Your task to perform on an android device: read, delete, or share a saved page in the chrome app Image 0: 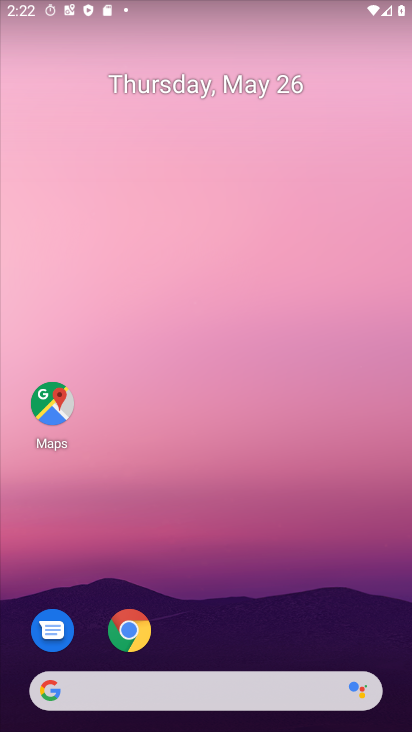
Step 0: click (130, 644)
Your task to perform on an android device: read, delete, or share a saved page in the chrome app Image 1: 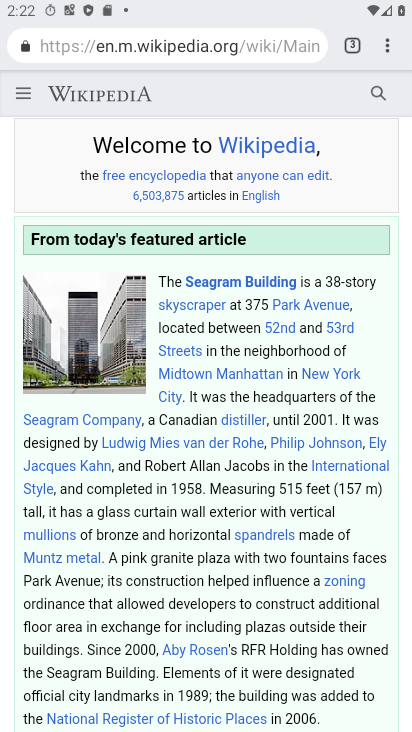
Step 1: click (386, 35)
Your task to perform on an android device: read, delete, or share a saved page in the chrome app Image 2: 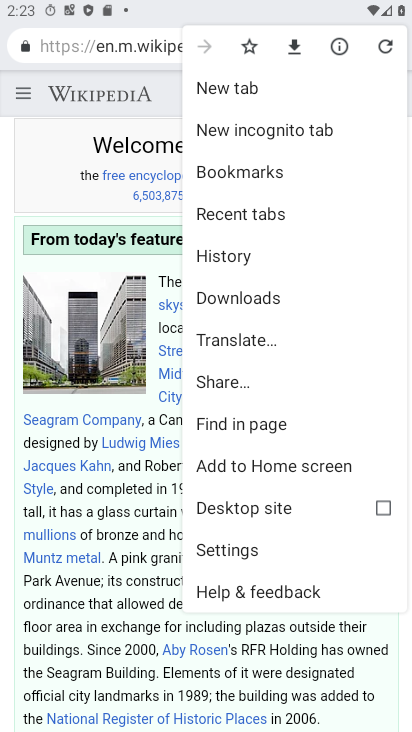
Step 2: click (290, 50)
Your task to perform on an android device: read, delete, or share a saved page in the chrome app Image 3: 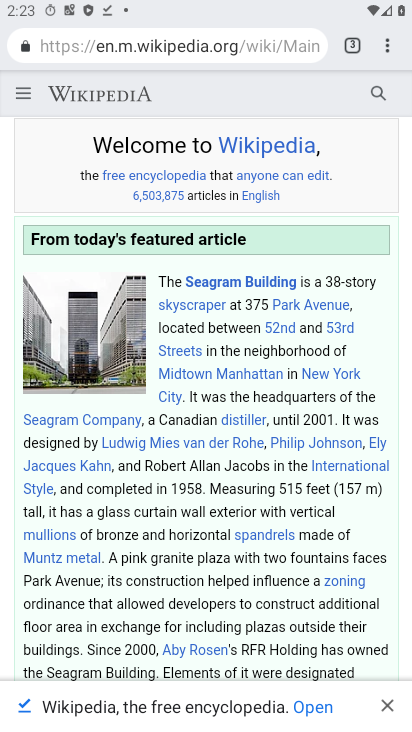
Step 3: click (386, 65)
Your task to perform on an android device: read, delete, or share a saved page in the chrome app Image 4: 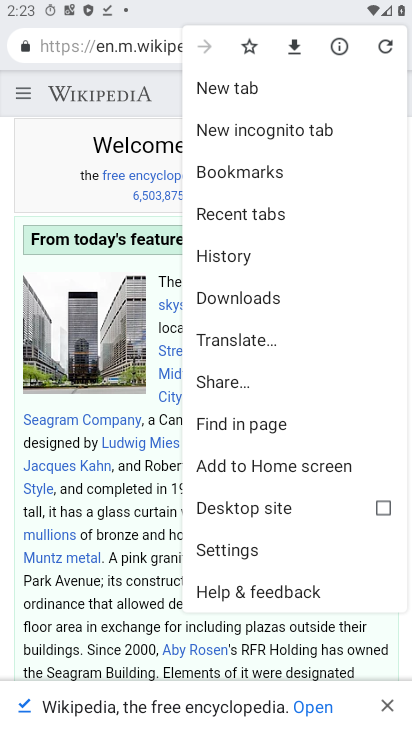
Step 4: click (259, 557)
Your task to perform on an android device: read, delete, or share a saved page in the chrome app Image 5: 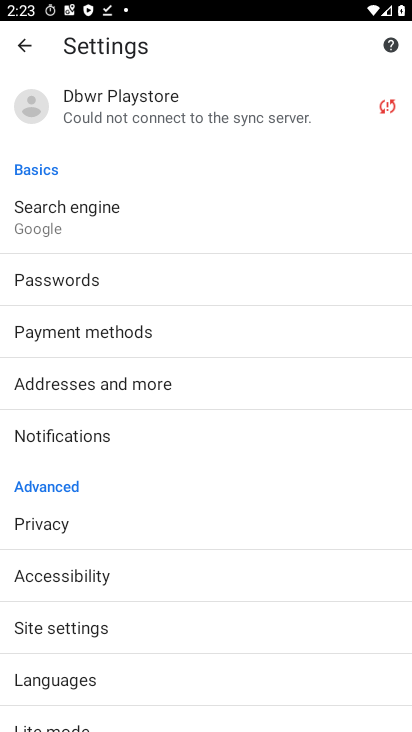
Step 5: task complete